Your task to perform on an android device: Open Maps and search for coffee Image 0: 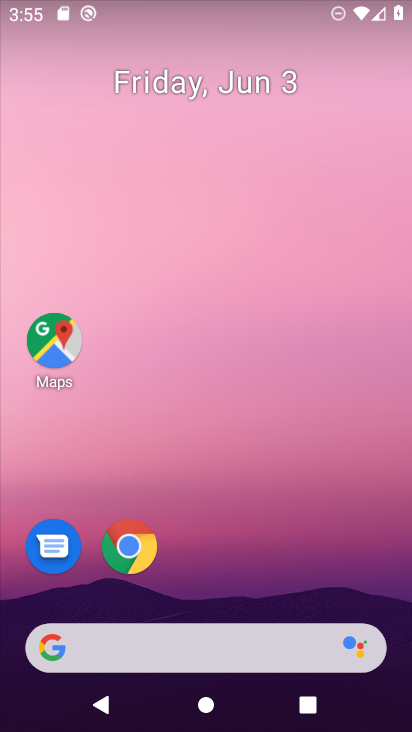
Step 0: click (43, 329)
Your task to perform on an android device: Open Maps and search for coffee Image 1: 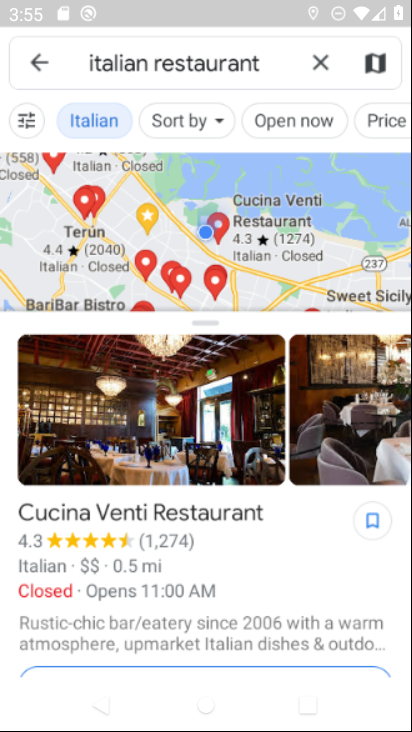
Step 1: click (320, 62)
Your task to perform on an android device: Open Maps and search for coffee Image 2: 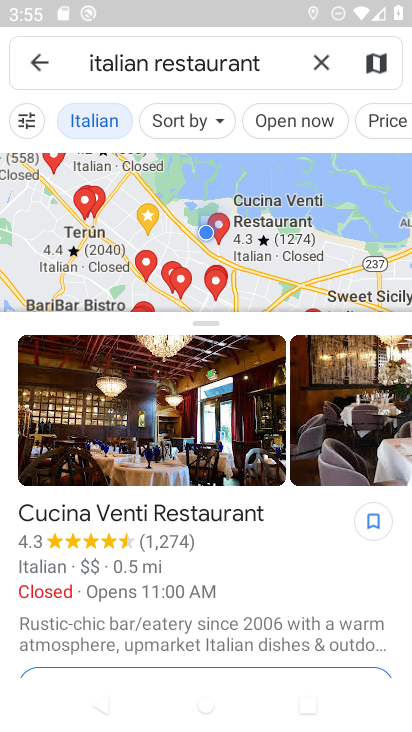
Step 2: click (320, 62)
Your task to perform on an android device: Open Maps and search for coffee Image 3: 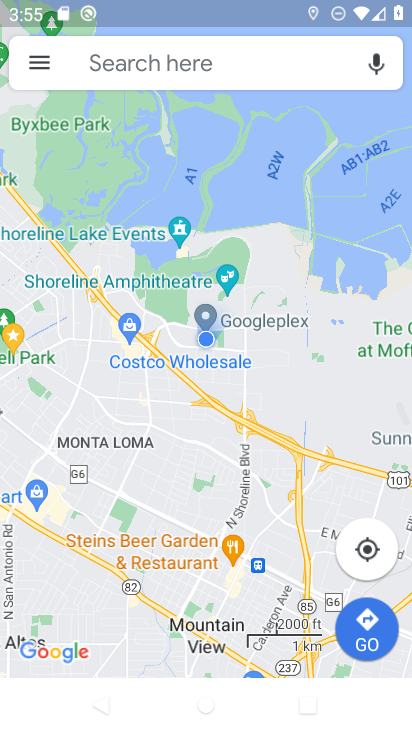
Step 3: click (236, 61)
Your task to perform on an android device: Open Maps and search for coffee Image 4: 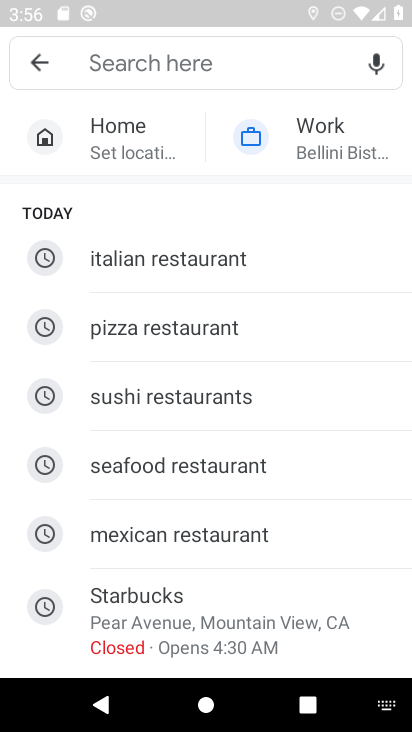
Step 4: type "coffee"
Your task to perform on an android device: Open Maps and search for coffee Image 5: 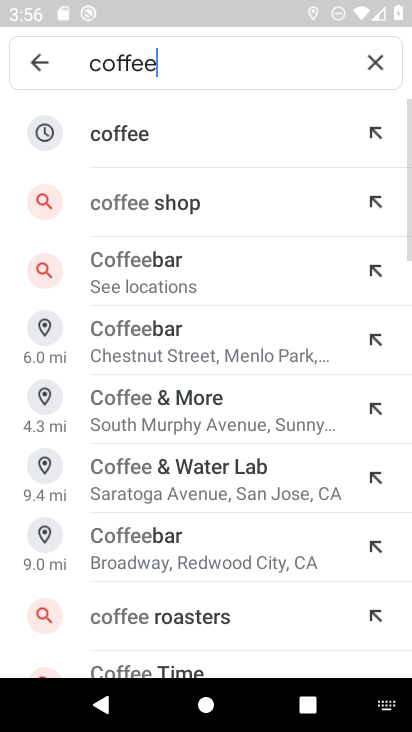
Step 5: click (191, 199)
Your task to perform on an android device: Open Maps and search for coffee Image 6: 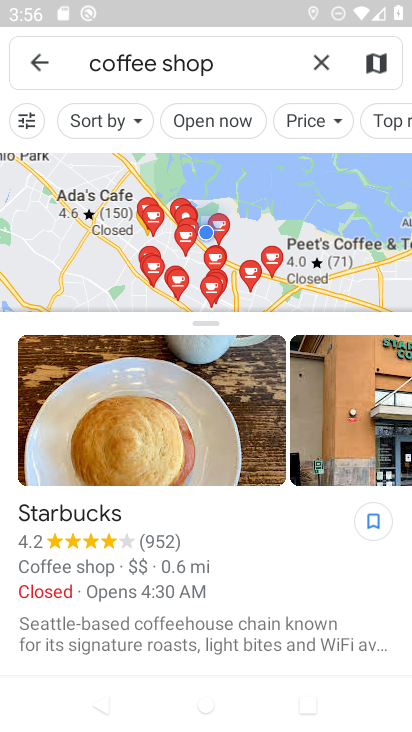
Step 6: task complete